Your task to perform on an android device: What's the weather today? Image 0: 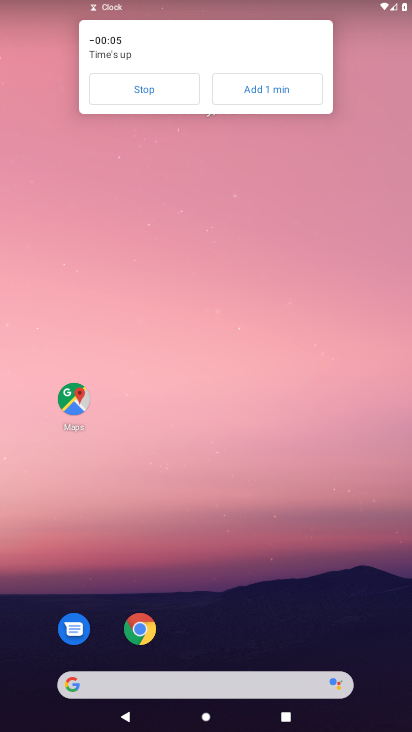
Step 0: press home button
Your task to perform on an android device: What's the weather today? Image 1: 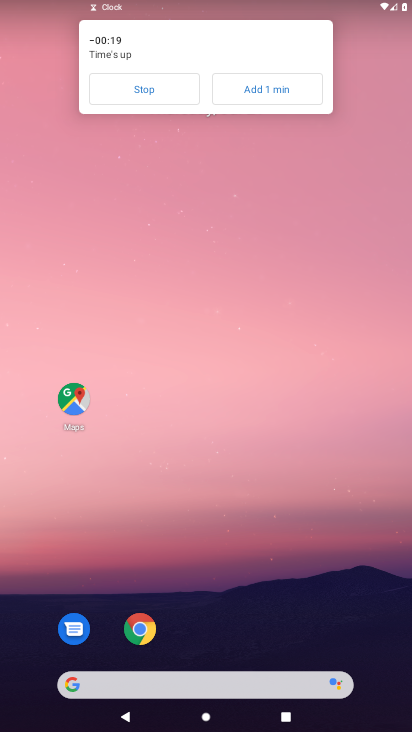
Step 1: click (137, 88)
Your task to perform on an android device: What's the weather today? Image 2: 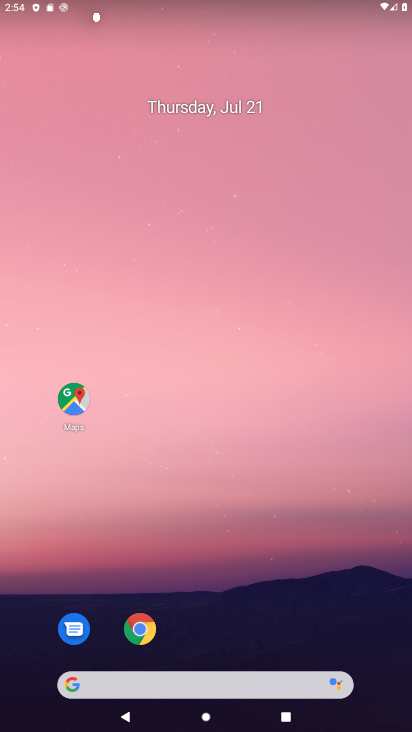
Step 2: click (120, 93)
Your task to perform on an android device: What's the weather today? Image 3: 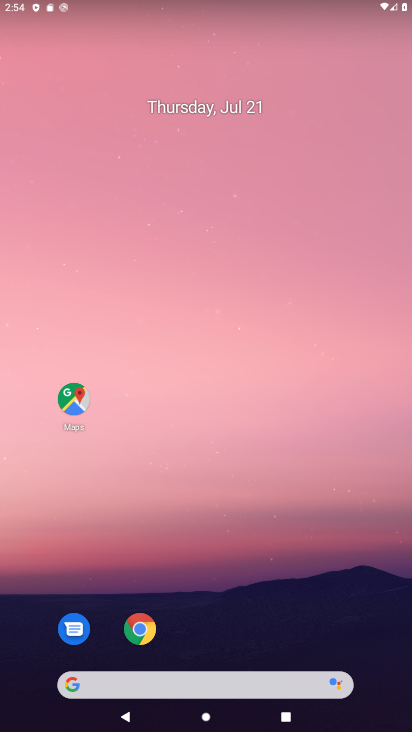
Step 3: drag from (181, 624) to (230, 36)
Your task to perform on an android device: What's the weather today? Image 4: 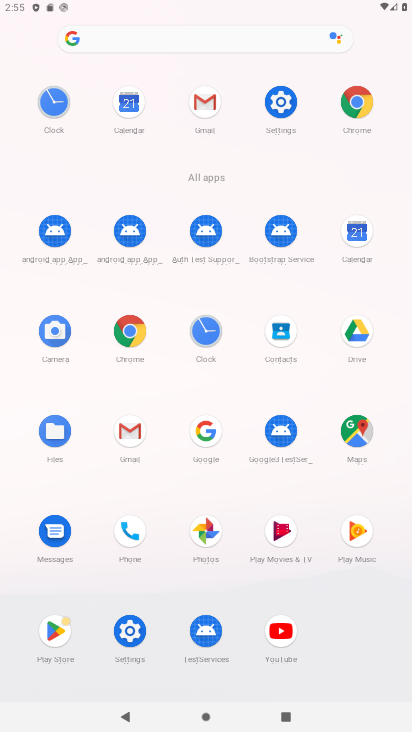
Step 4: click (333, 117)
Your task to perform on an android device: What's the weather today? Image 5: 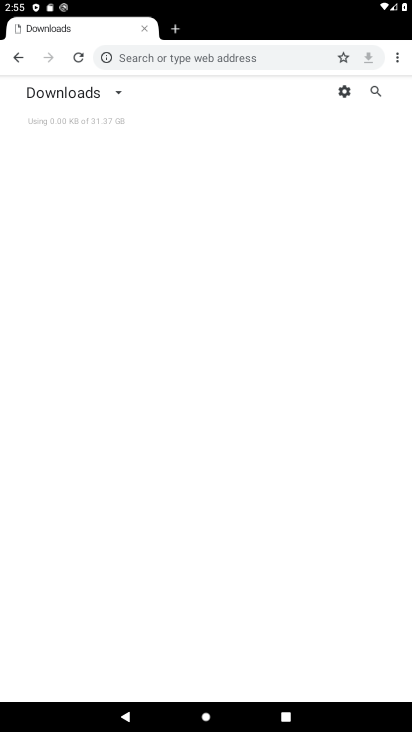
Step 5: click (222, 59)
Your task to perform on an android device: What's the weather today? Image 6: 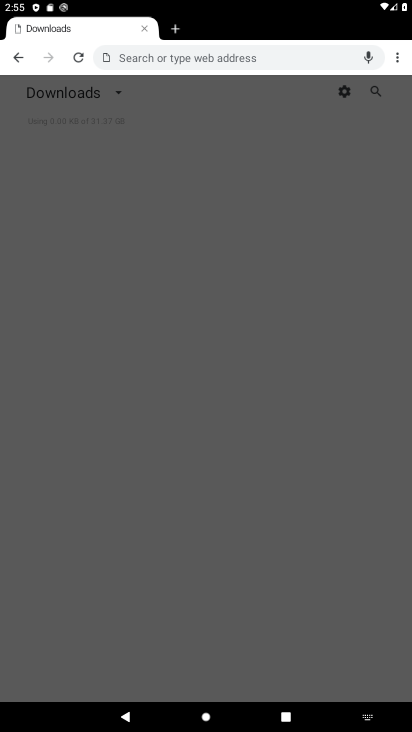
Step 6: type "What's the weather today?"
Your task to perform on an android device: What's the weather today? Image 7: 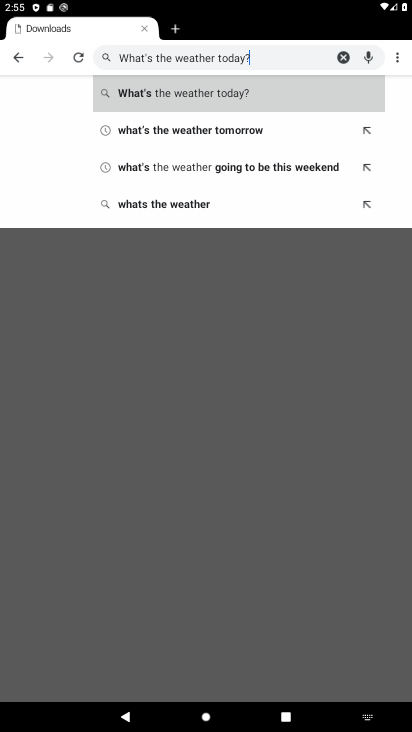
Step 7: type ""
Your task to perform on an android device: What's the weather today? Image 8: 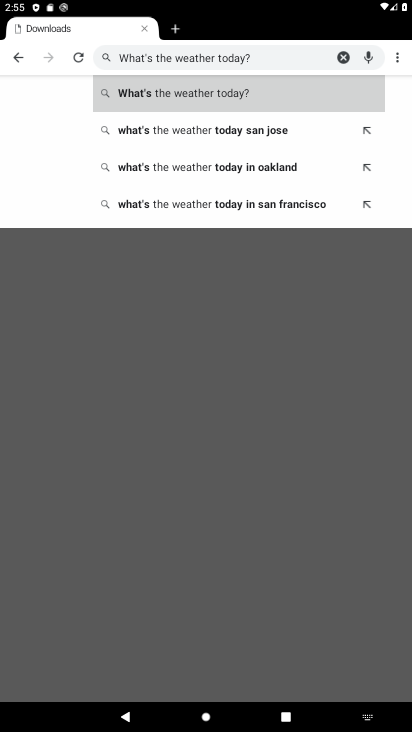
Step 8: click (257, 95)
Your task to perform on an android device: What's the weather today? Image 9: 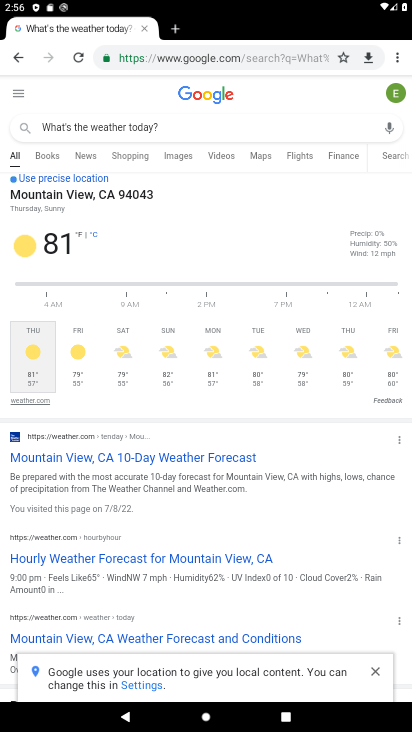
Step 9: task complete